Your task to perform on an android device: When is my next meeting? Image 0: 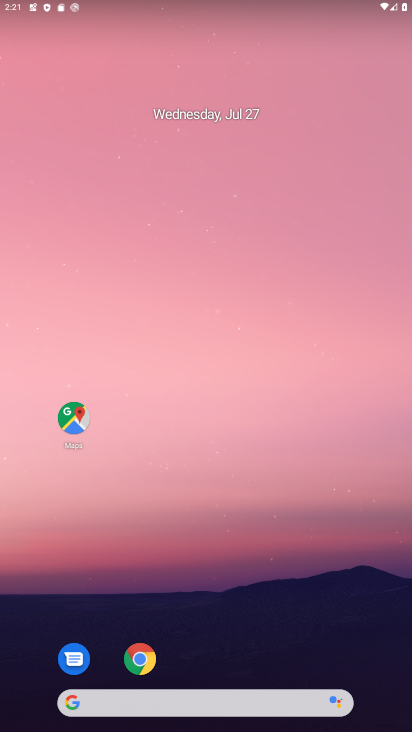
Step 0: drag from (211, 726) to (204, 236)
Your task to perform on an android device: When is my next meeting? Image 1: 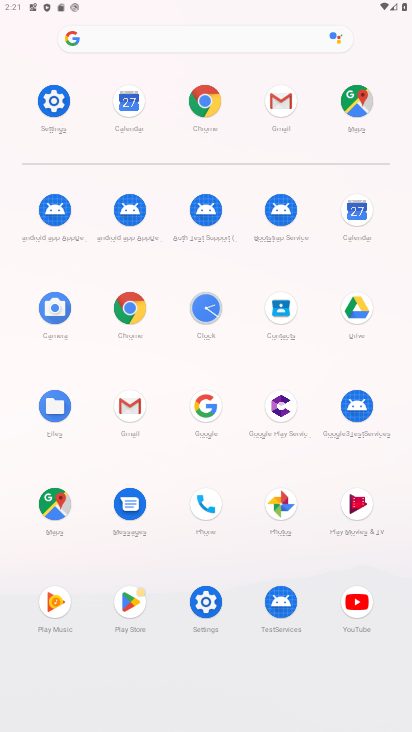
Step 1: click (355, 211)
Your task to perform on an android device: When is my next meeting? Image 2: 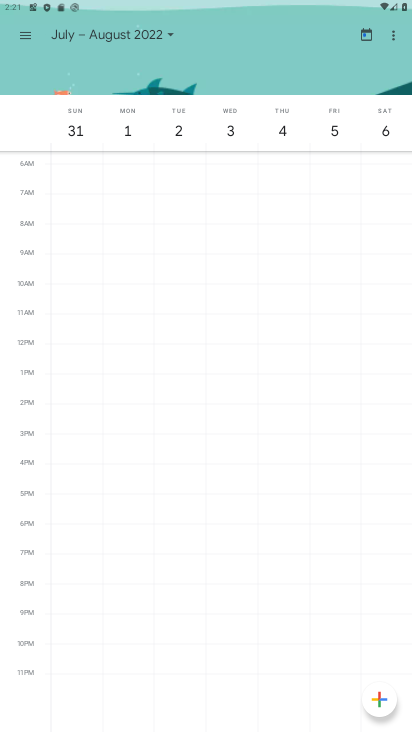
Step 2: click (172, 35)
Your task to perform on an android device: When is my next meeting? Image 3: 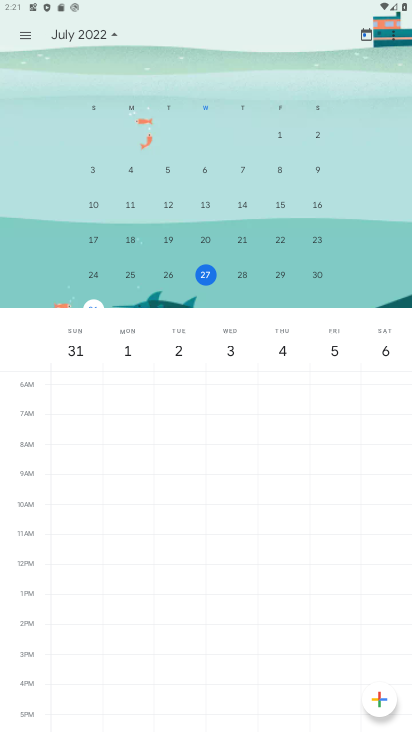
Step 3: click (239, 274)
Your task to perform on an android device: When is my next meeting? Image 4: 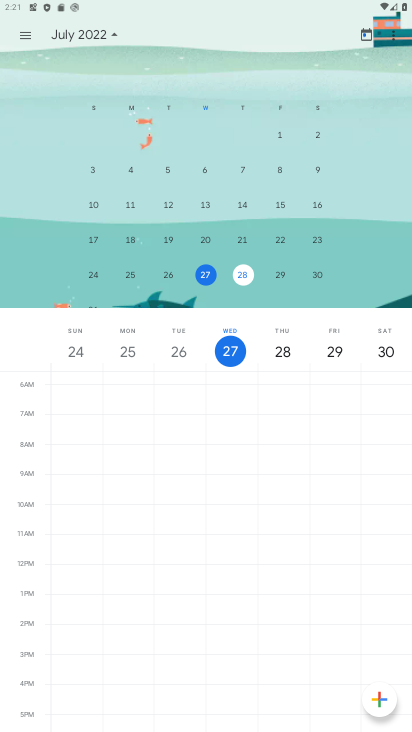
Step 4: click (233, 347)
Your task to perform on an android device: When is my next meeting? Image 5: 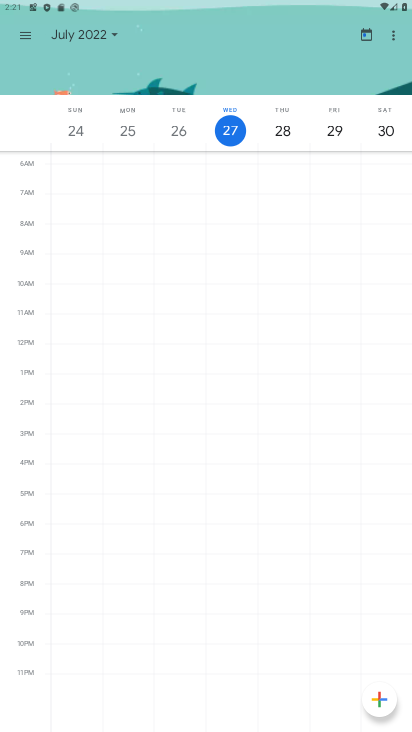
Step 5: click (33, 37)
Your task to perform on an android device: When is my next meeting? Image 6: 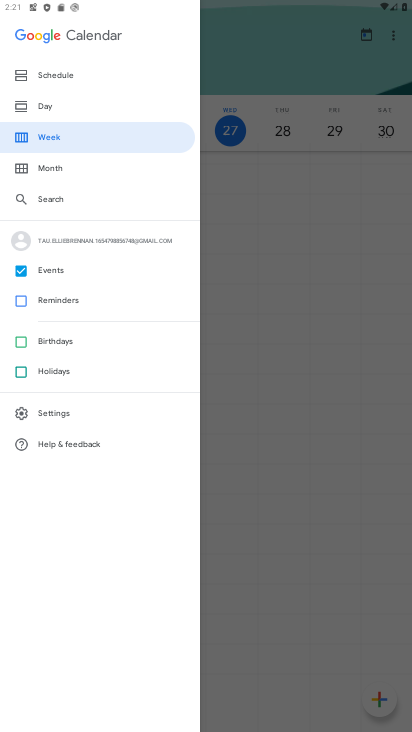
Step 6: click (20, 367)
Your task to perform on an android device: When is my next meeting? Image 7: 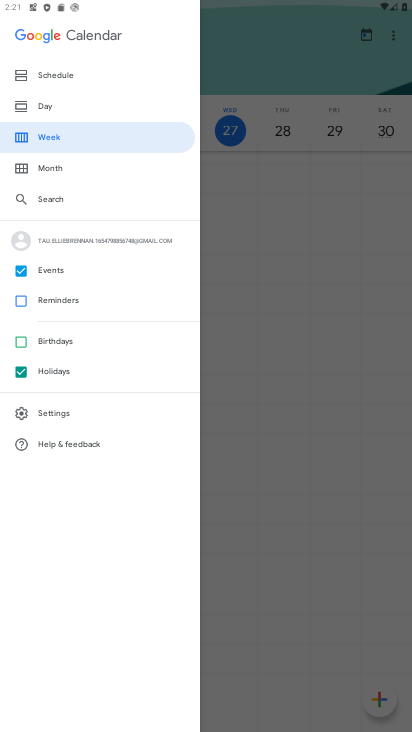
Step 7: click (17, 338)
Your task to perform on an android device: When is my next meeting? Image 8: 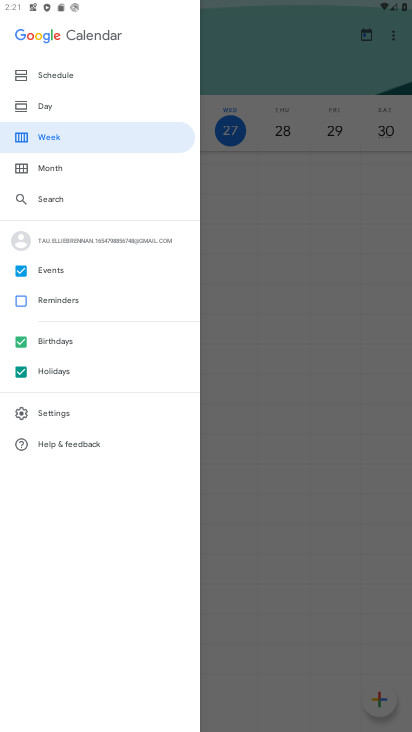
Step 8: click (20, 296)
Your task to perform on an android device: When is my next meeting? Image 9: 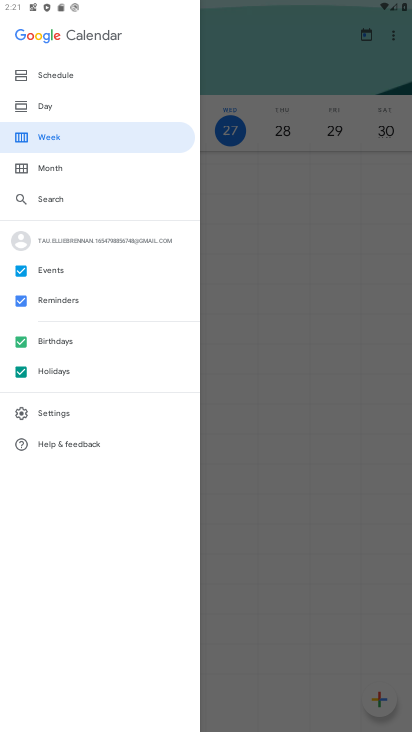
Step 9: click (233, 131)
Your task to perform on an android device: When is my next meeting? Image 10: 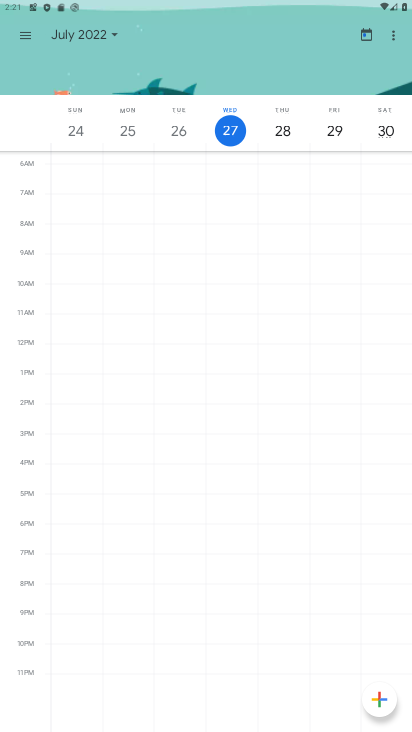
Step 10: task complete